Your task to perform on an android device: change notification settings in the gmail app Image 0: 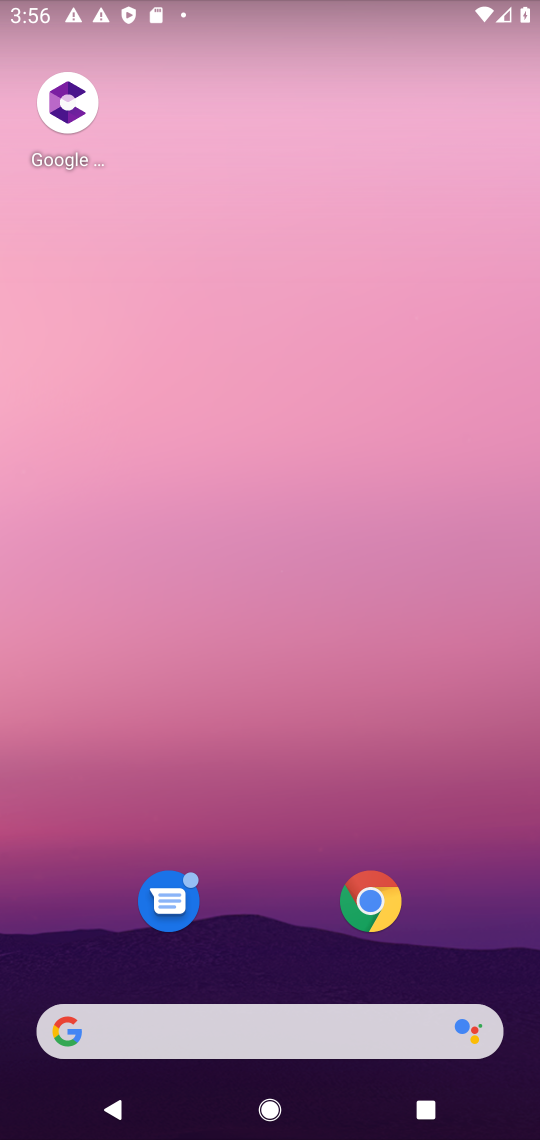
Step 0: press home button
Your task to perform on an android device: change notification settings in the gmail app Image 1: 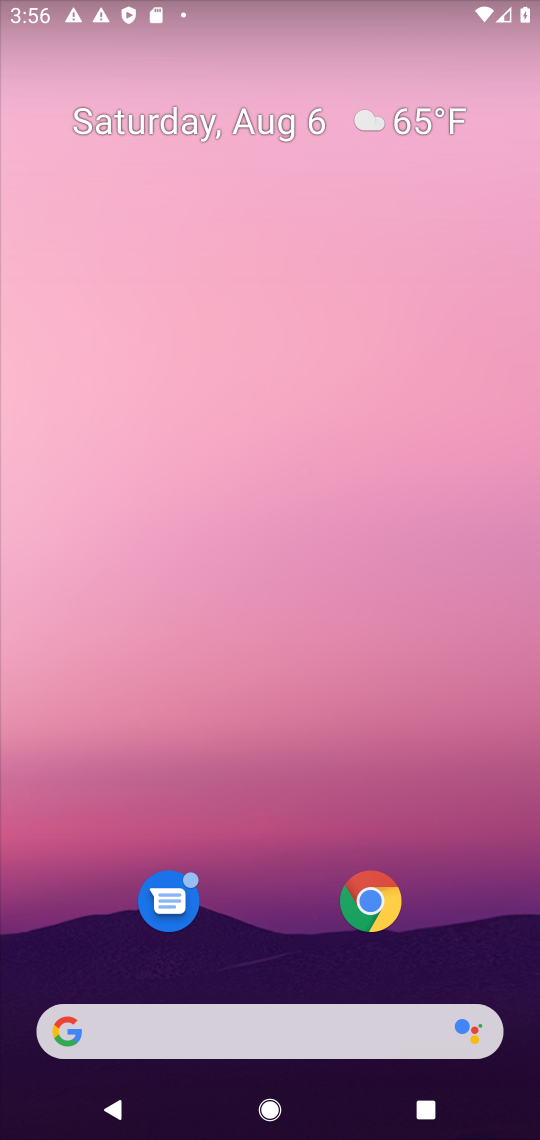
Step 1: drag from (56, 925) to (176, 75)
Your task to perform on an android device: change notification settings in the gmail app Image 2: 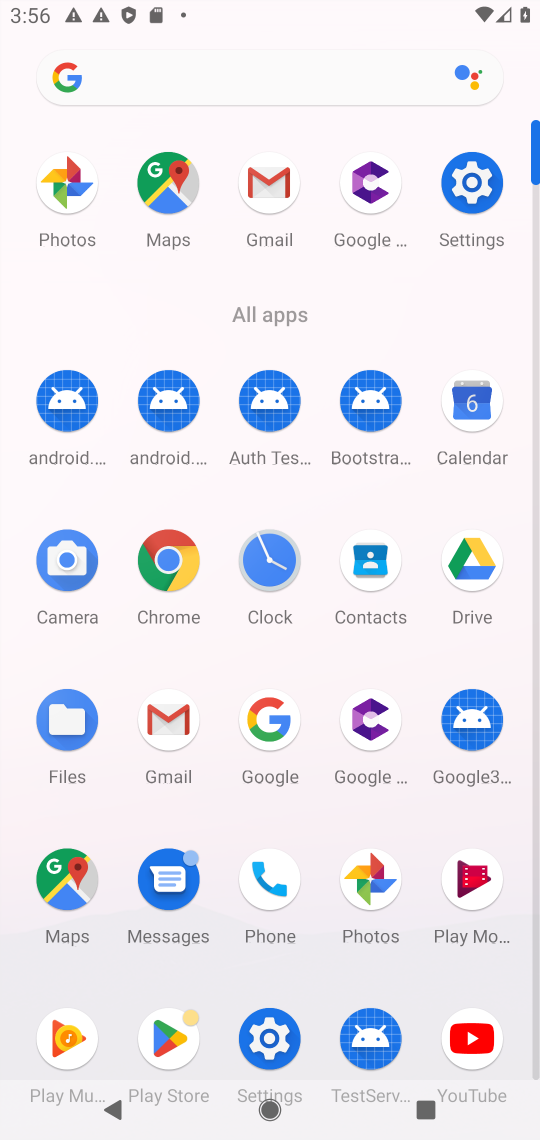
Step 2: click (257, 187)
Your task to perform on an android device: change notification settings in the gmail app Image 3: 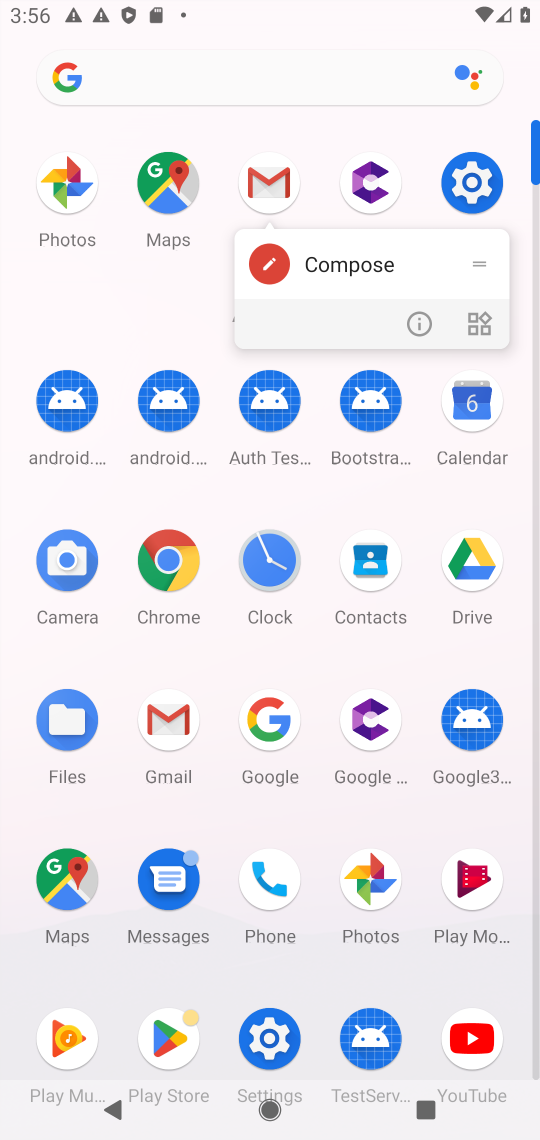
Step 3: click (419, 328)
Your task to perform on an android device: change notification settings in the gmail app Image 4: 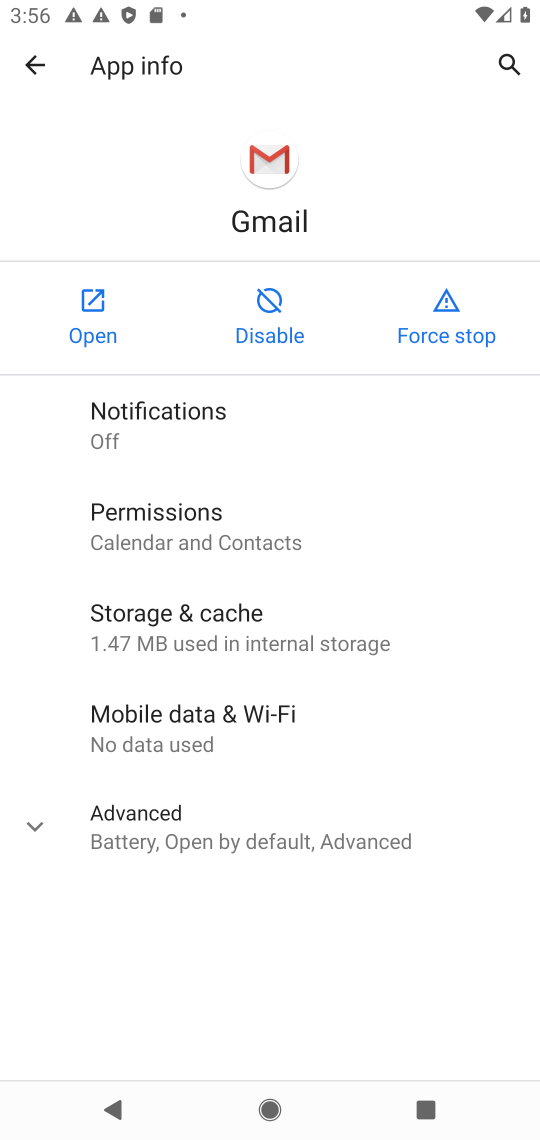
Step 4: click (147, 430)
Your task to perform on an android device: change notification settings in the gmail app Image 5: 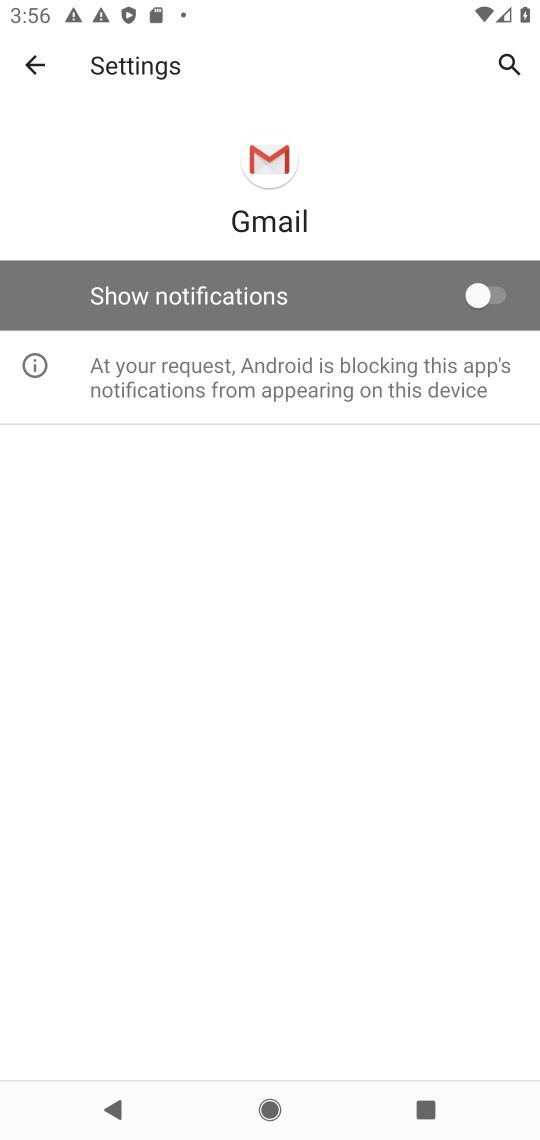
Step 5: click (229, 305)
Your task to perform on an android device: change notification settings in the gmail app Image 6: 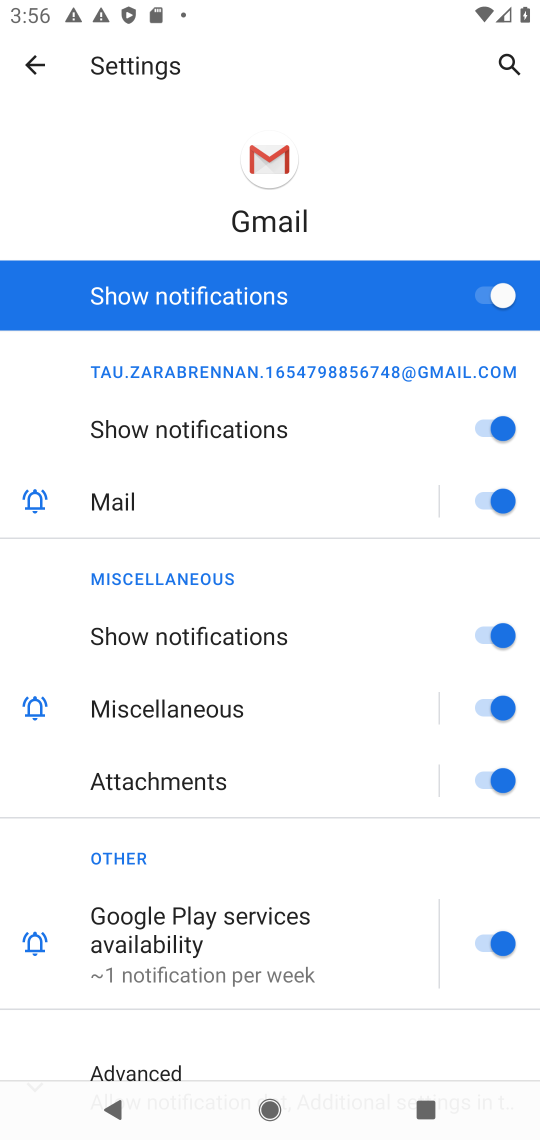
Step 6: task complete